Your task to perform on an android device: change timer sound Image 0: 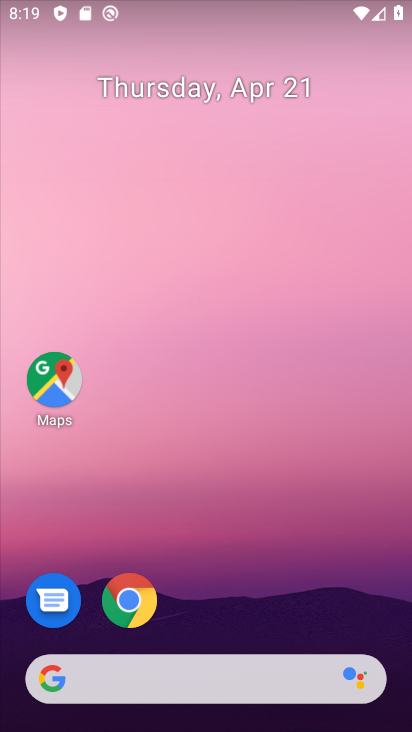
Step 0: drag from (54, 684) to (399, 152)
Your task to perform on an android device: change timer sound Image 1: 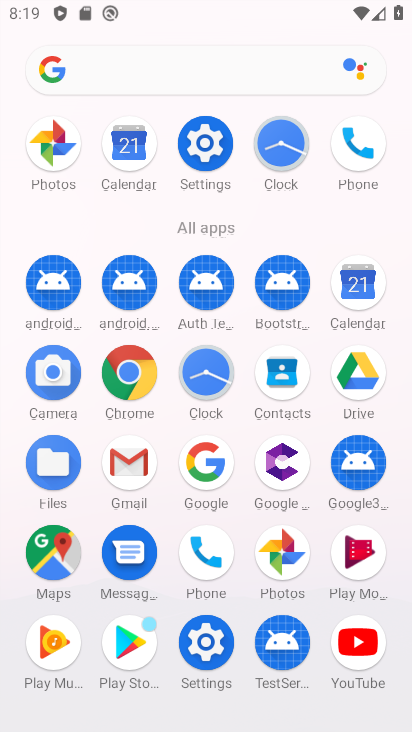
Step 1: click (289, 151)
Your task to perform on an android device: change timer sound Image 2: 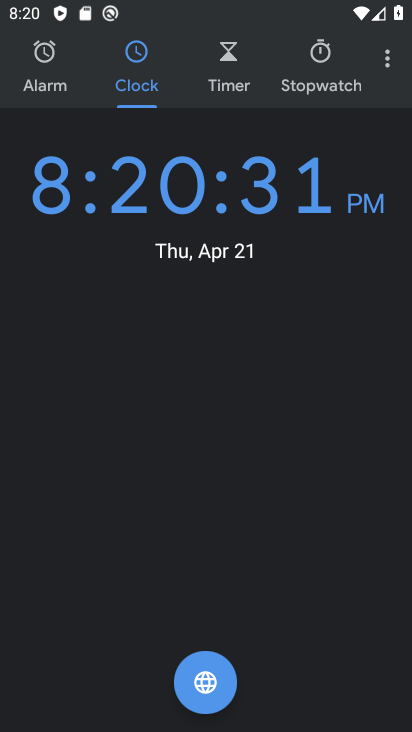
Step 2: click (383, 52)
Your task to perform on an android device: change timer sound Image 3: 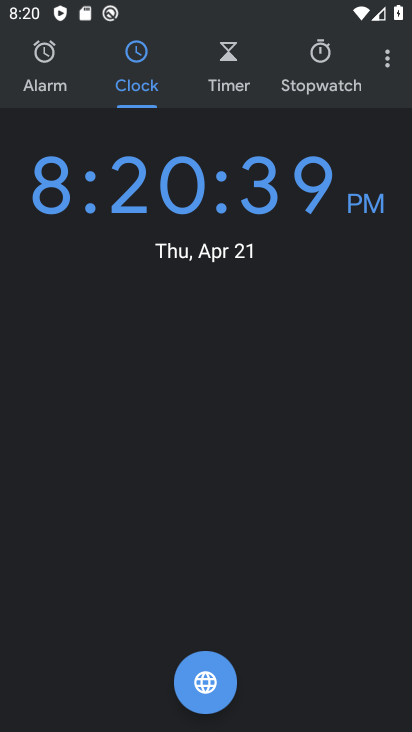
Step 3: click (391, 55)
Your task to perform on an android device: change timer sound Image 4: 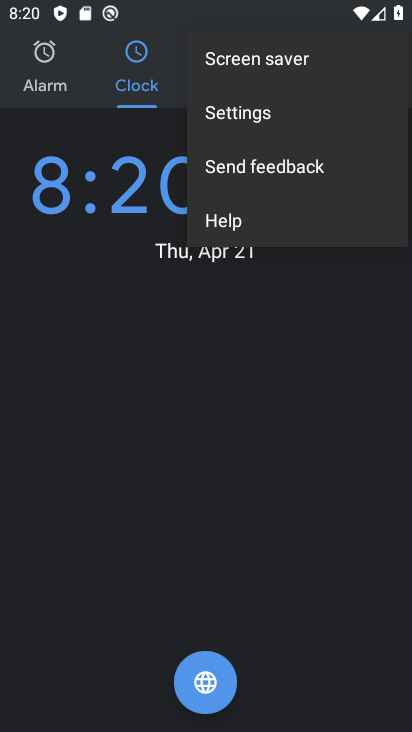
Step 4: click (229, 125)
Your task to perform on an android device: change timer sound Image 5: 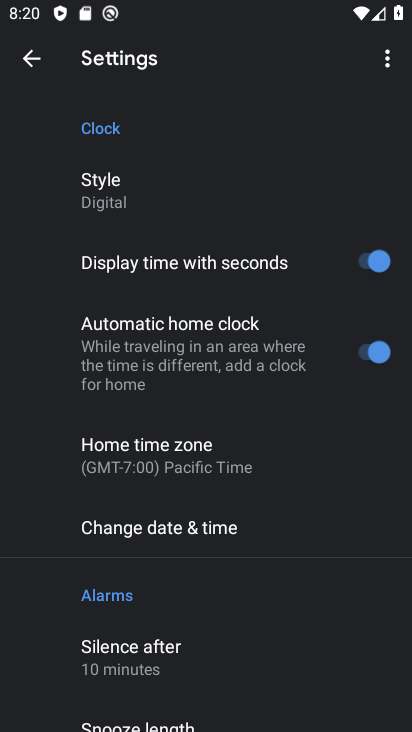
Step 5: drag from (133, 622) to (222, 347)
Your task to perform on an android device: change timer sound Image 6: 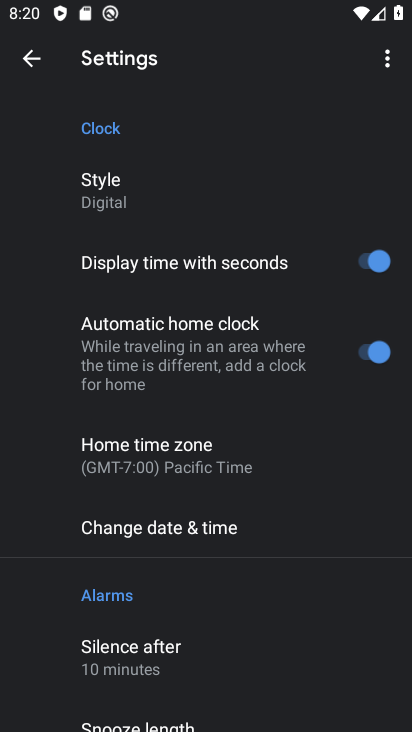
Step 6: drag from (146, 663) to (298, 278)
Your task to perform on an android device: change timer sound Image 7: 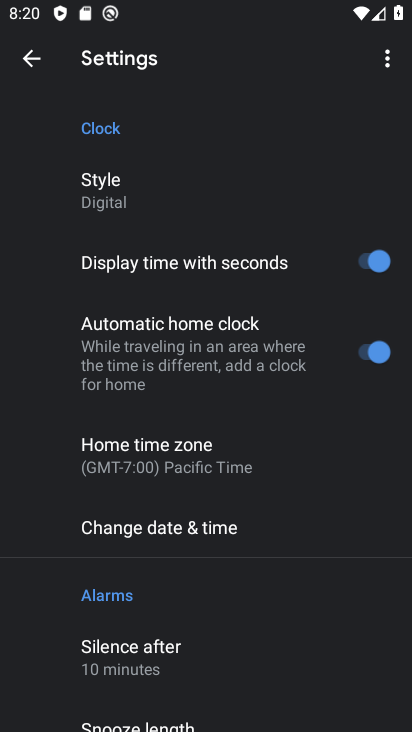
Step 7: drag from (43, 669) to (262, 244)
Your task to perform on an android device: change timer sound Image 8: 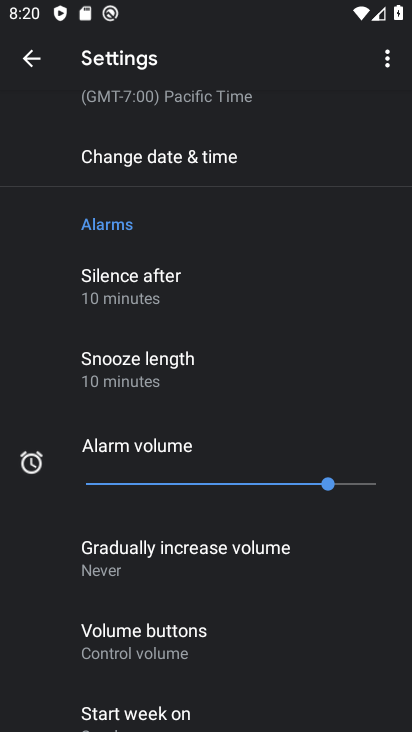
Step 8: drag from (93, 677) to (256, 290)
Your task to perform on an android device: change timer sound Image 9: 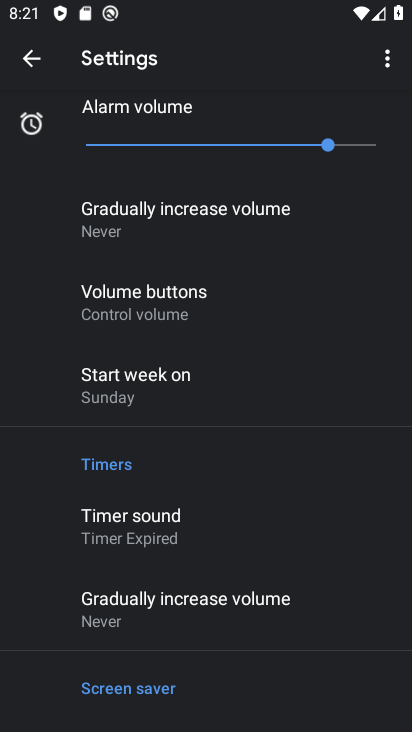
Step 9: click (208, 533)
Your task to perform on an android device: change timer sound Image 10: 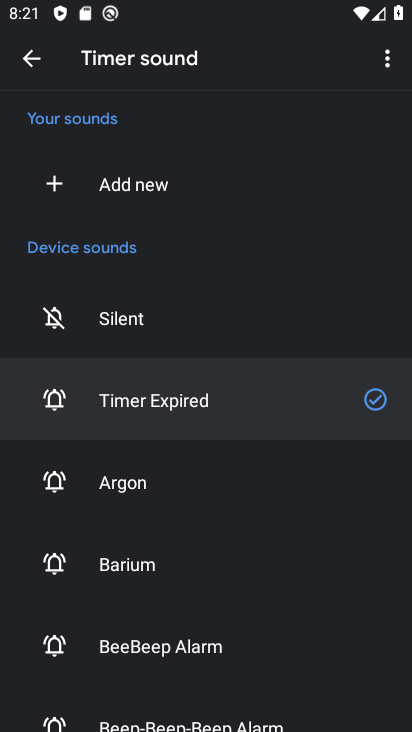
Step 10: click (152, 481)
Your task to perform on an android device: change timer sound Image 11: 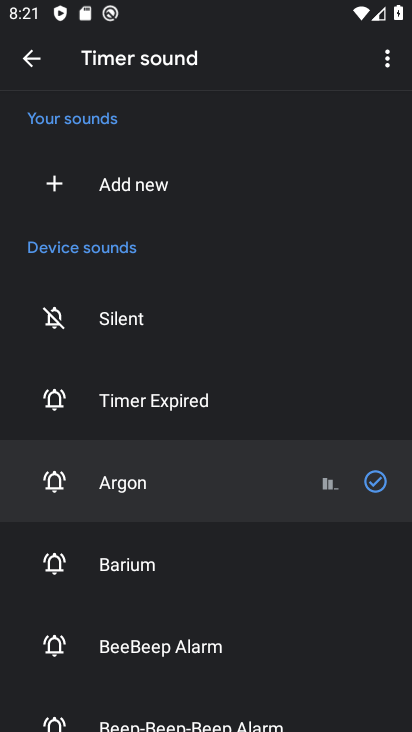
Step 11: task complete